Your task to perform on an android device: see creations saved in the google photos Image 0: 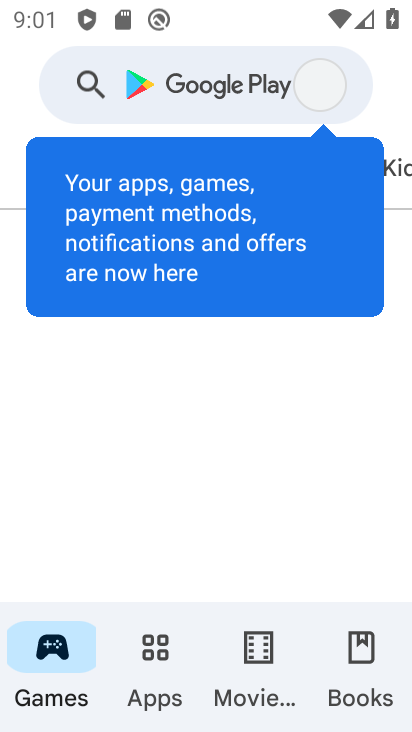
Step 0: press home button
Your task to perform on an android device: see creations saved in the google photos Image 1: 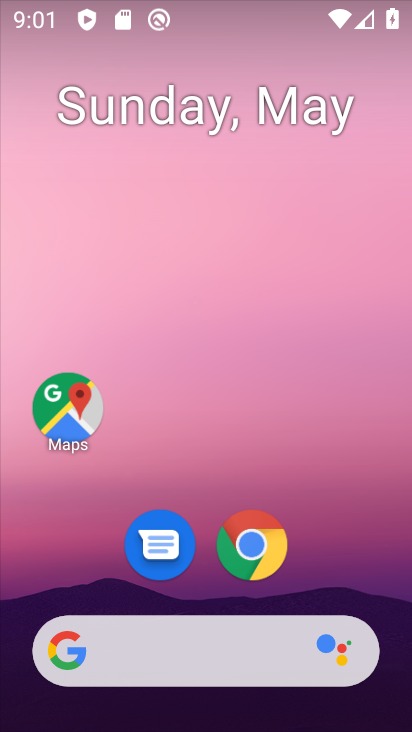
Step 1: drag from (164, 418) to (212, 95)
Your task to perform on an android device: see creations saved in the google photos Image 2: 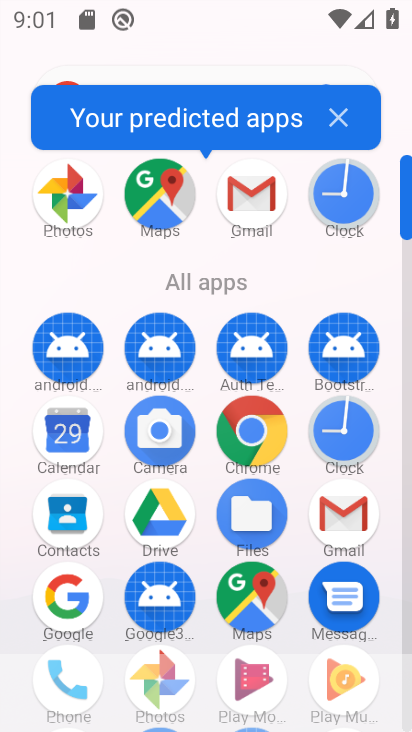
Step 2: drag from (207, 619) to (251, 135)
Your task to perform on an android device: see creations saved in the google photos Image 3: 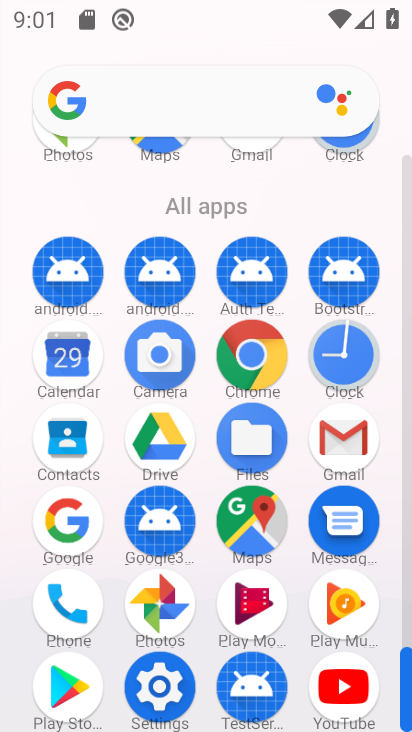
Step 3: click (157, 613)
Your task to perform on an android device: see creations saved in the google photos Image 4: 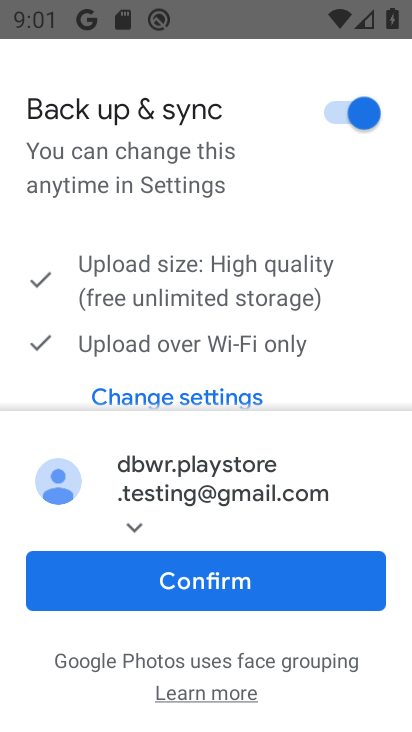
Step 4: click (164, 592)
Your task to perform on an android device: see creations saved in the google photos Image 5: 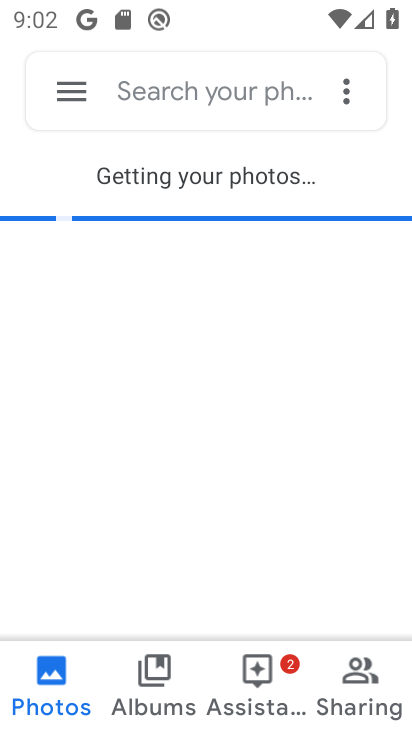
Step 5: click (137, 684)
Your task to perform on an android device: see creations saved in the google photos Image 6: 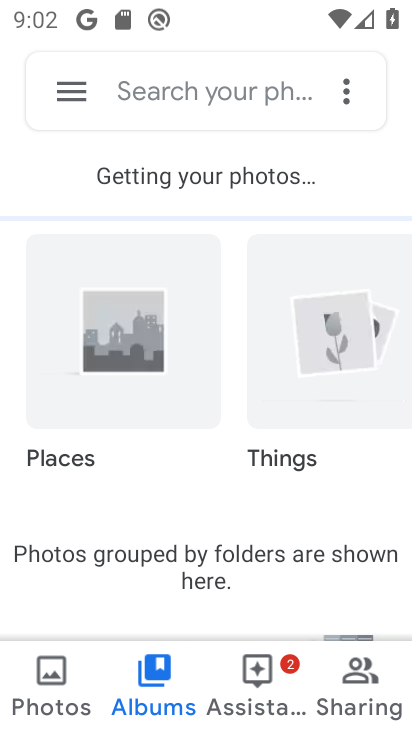
Step 6: drag from (200, 541) to (201, 169)
Your task to perform on an android device: see creations saved in the google photos Image 7: 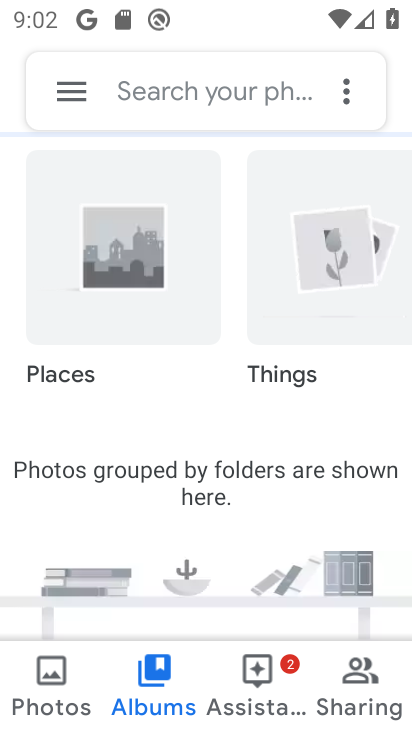
Step 7: drag from (232, 568) to (275, 210)
Your task to perform on an android device: see creations saved in the google photos Image 8: 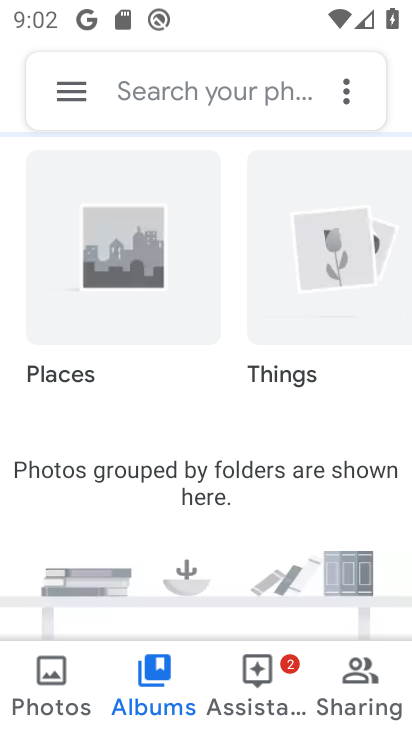
Step 8: click (239, 693)
Your task to perform on an android device: see creations saved in the google photos Image 9: 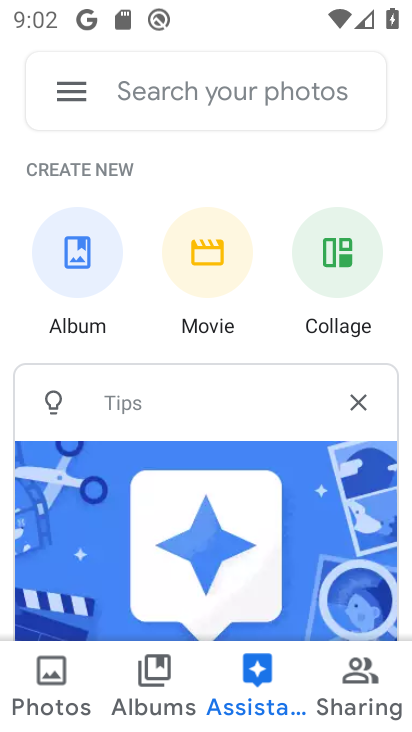
Step 9: click (152, 689)
Your task to perform on an android device: see creations saved in the google photos Image 10: 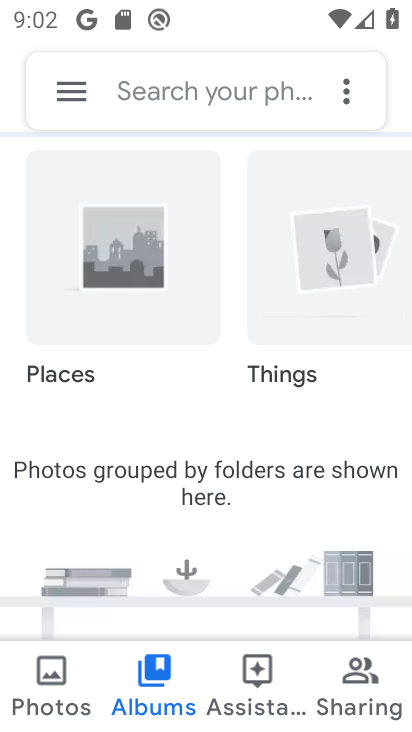
Step 10: task complete